Your task to perform on an android device: open chrome privacy settings Image 0: 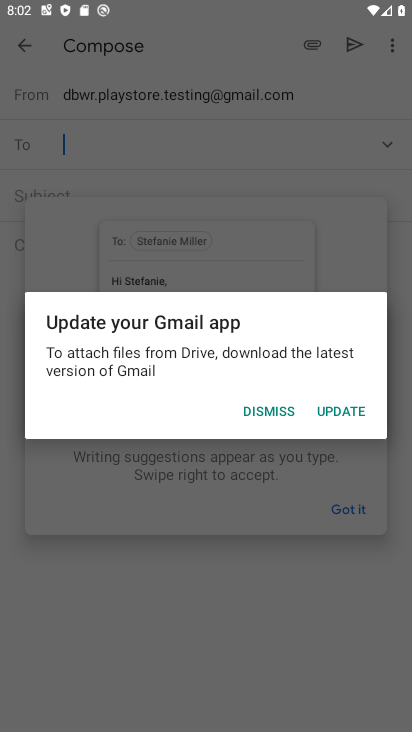
Step 0: press home button
Your task to perform on an android device: open chrome privacy settings Image 1: 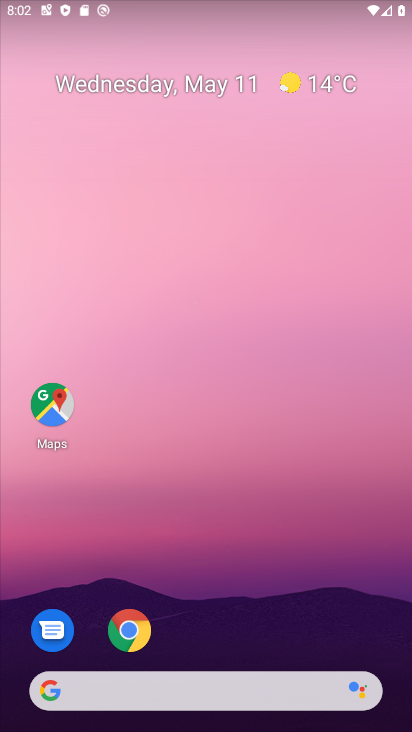
Step 1: click (138, 632)
Your task to perform on an android device: open chrome privacy settings Image 2: 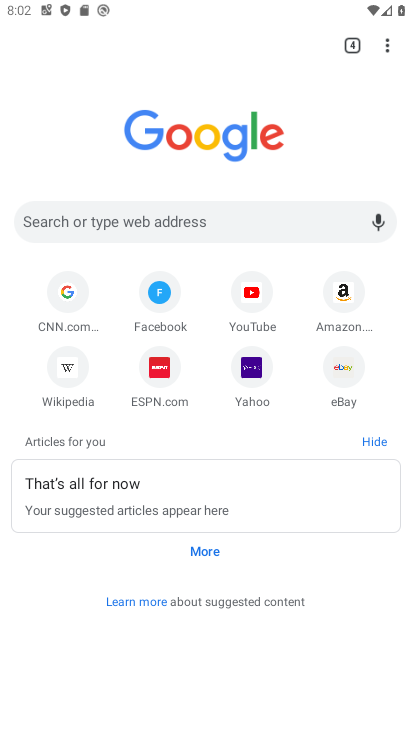
Step 2: click (388, 53)
Your task to perform on an android device: open chrome privacy settings Image 3: 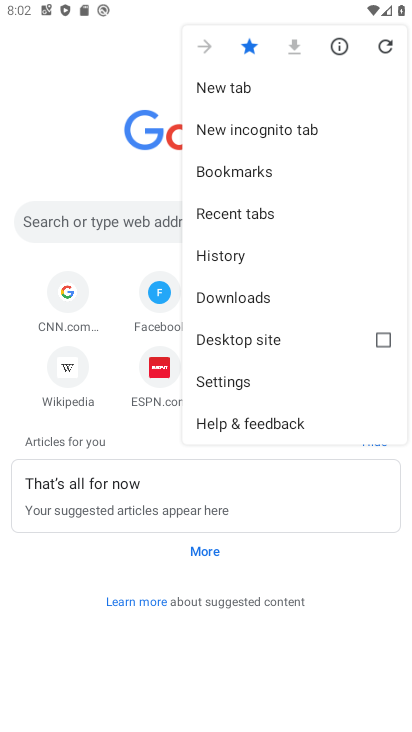
Step 3: click (226, 385)
Your task to perform on an android device: open chrome privacy settings Image 4: 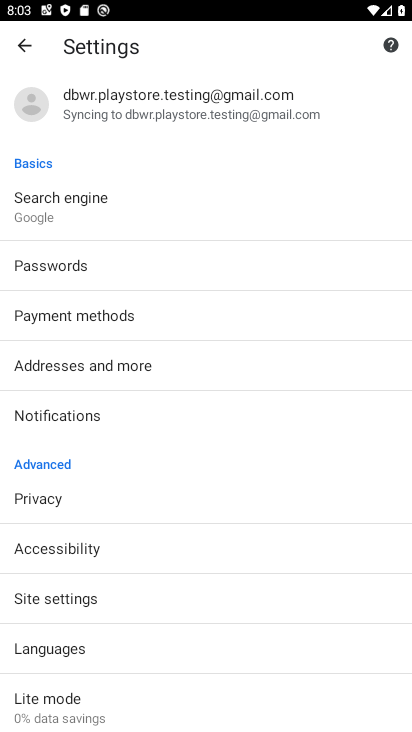
Step 4: click (63, 504)
Your task to perform on an android device: open chrome privacy settings Image 5: 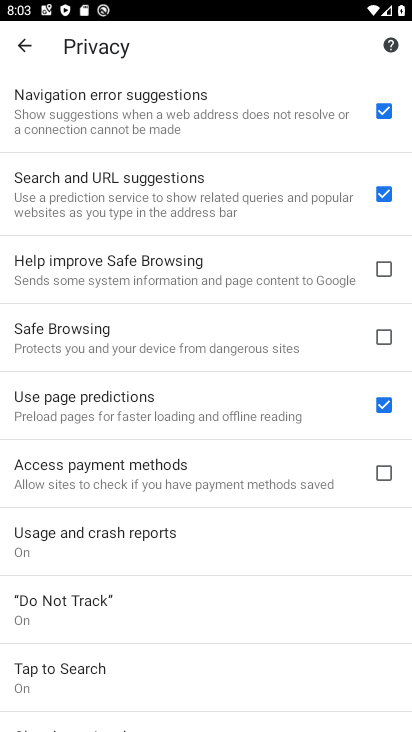
Step 5: task complete